Your task to perform on an android device: Set the phone to "Do not disturb". Image 0: 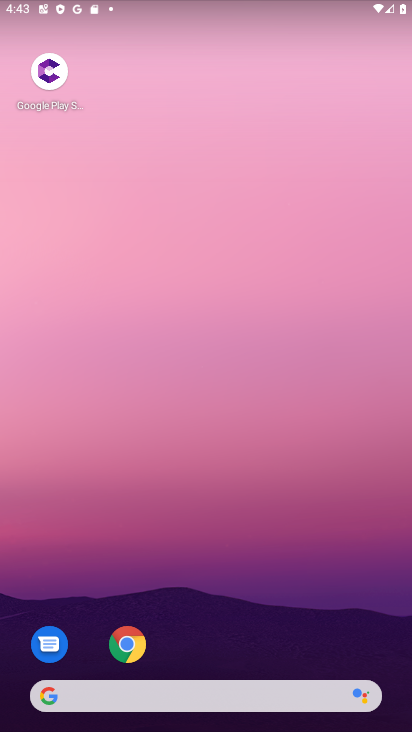
Step 0: click (132, 644)
Your task to perform on an android device: Set the phone to "Do not disturb". Image 1: 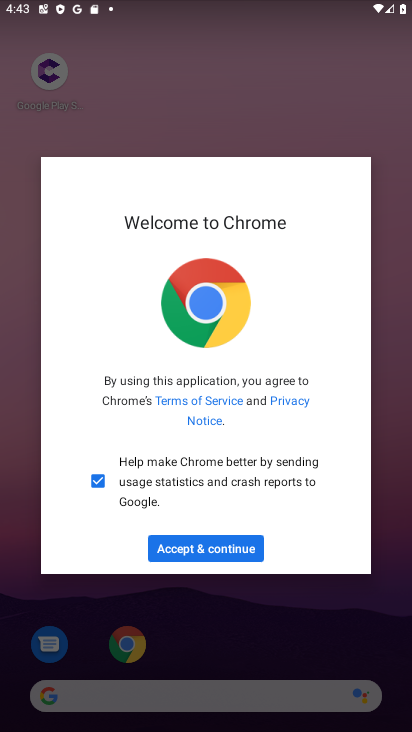
Step 1: press home button
Your task to perform on an android device: Set the phone to "Do not disturb". Image 2: 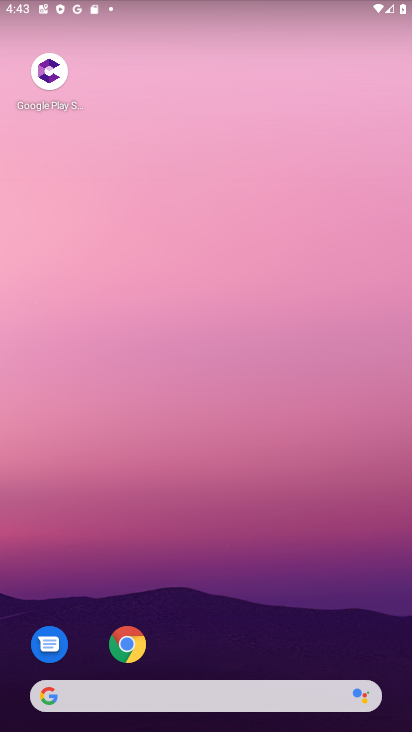
Step 2: drag from (209, 659) to (211, 197)
Your task to perform on an android device: Set the phone to "Do not disturb". Image 3: 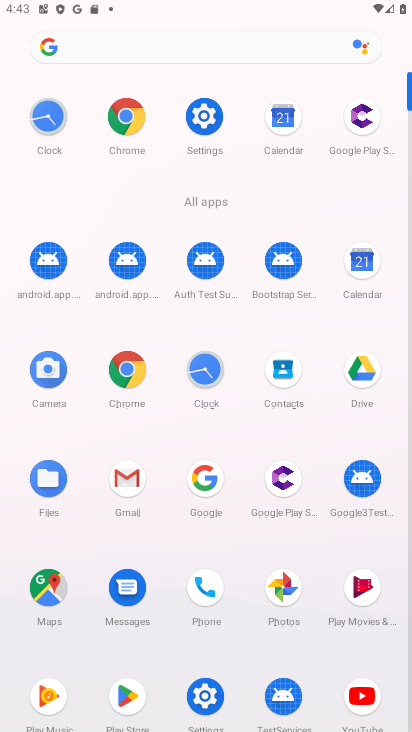
Step 3: click (201, 133)
Your task to perform on an android device: Set the phone to "Do not disturb". Image 4: 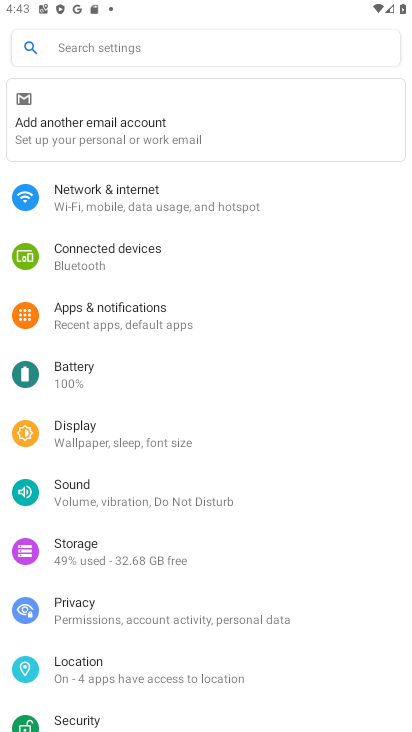
Step 4: drag from (96, 564) to (128, 428)
Your task to perform on an android device: Set the phone to "Do not disturb". Image 5: 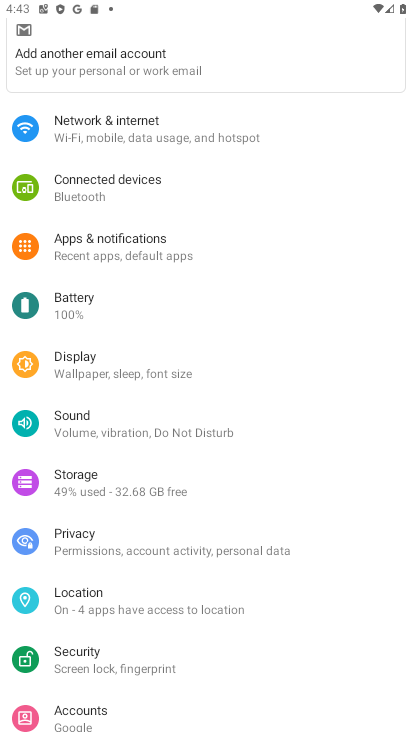
Step 5: click (123, 436)
Your task to perform on an android device: Set the phone to "Do not disturb". Image 6: 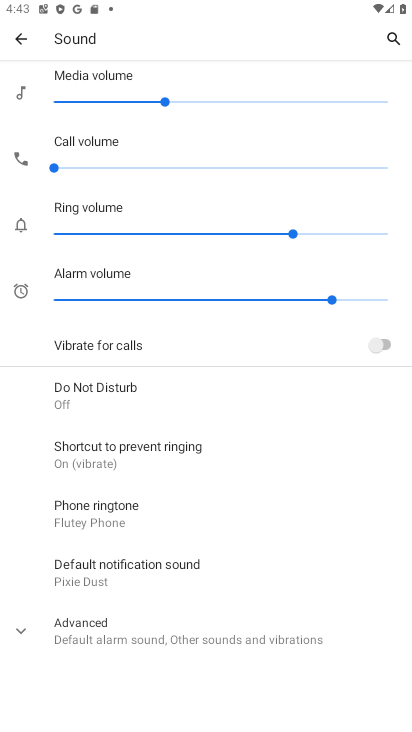
Step 6: click (121, 397)
Your task to perform on an android device: Set the phone to "Do not disturb". Image 7: 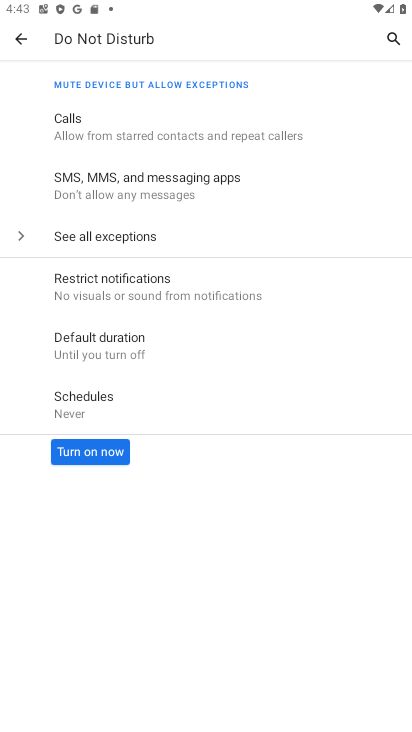
Step 7: click (90, 445)
Your task to perform on an android device: Set the phone to "Do not disturb". Image 8: 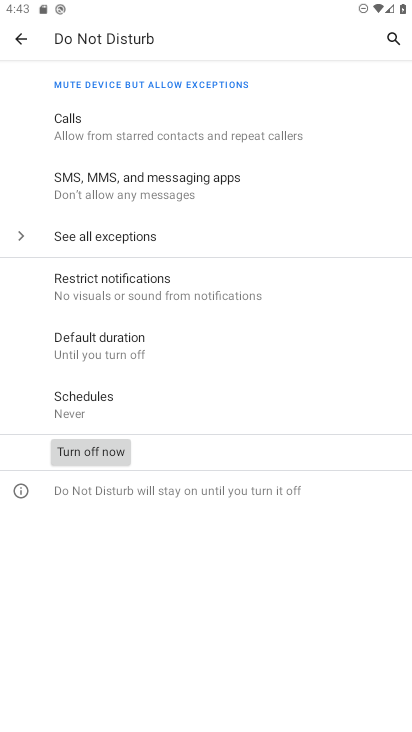
Step 8: task complete